Your task to perform on an android device: change the clock display to digital Image 0: 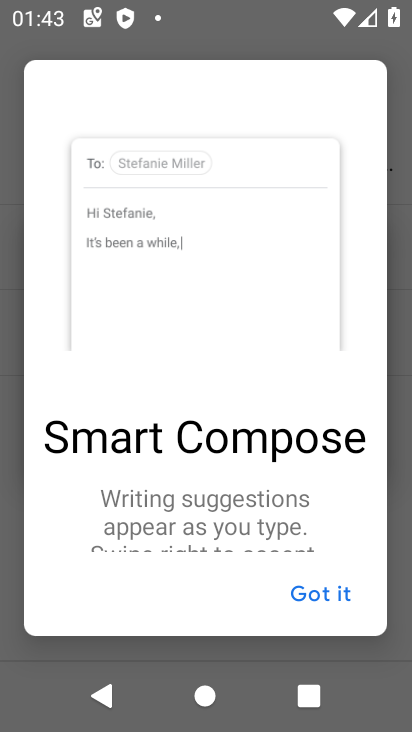
Step 0: press home button
Your task to perform on an android device: change the clock display to digital Image 1: 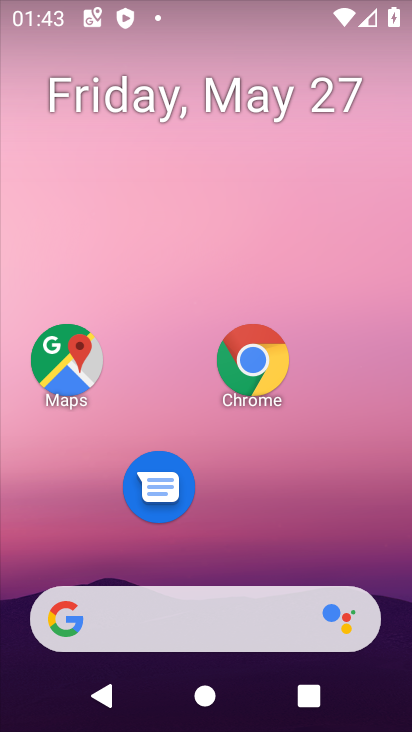
Step 1: drag from (222, 536) to (284, 79)
Your task to perform on an android device: change the clock display to digital Image 2: 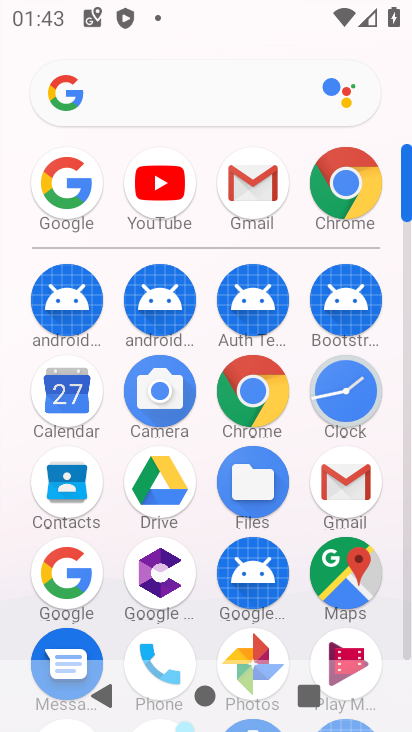
Step 2: drag from (223, 580) to (245, 172)
Your task to perform on an android device: change the clock display to digital Image 3: 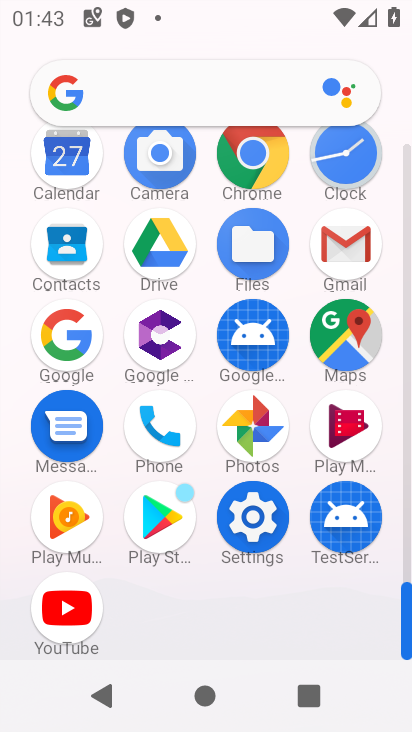
Step 3: drag from (284, 168) to (300, 292)
Your task to perform on an android device: change the clock display to digital Image 4: 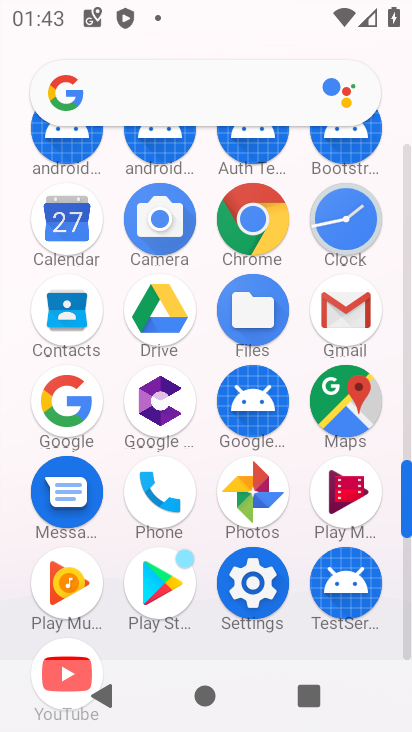
Step 4: click (346, 213)
Your task to perform on an android device: change the clock display to digital Image 5: 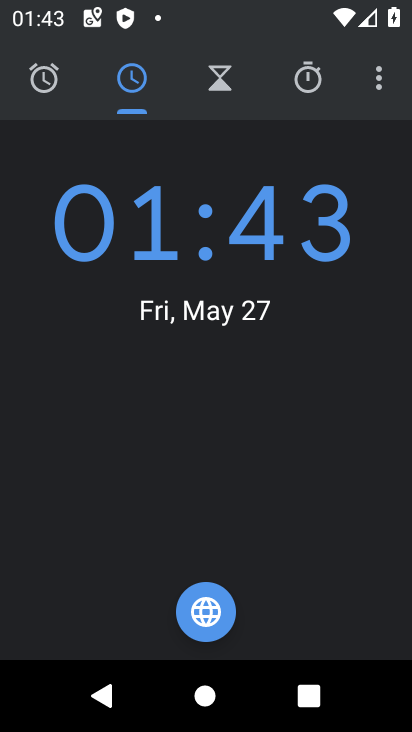
Step 5: click (370, 78)
Your task to perform on an android device: change the clock display to digital Image 6: 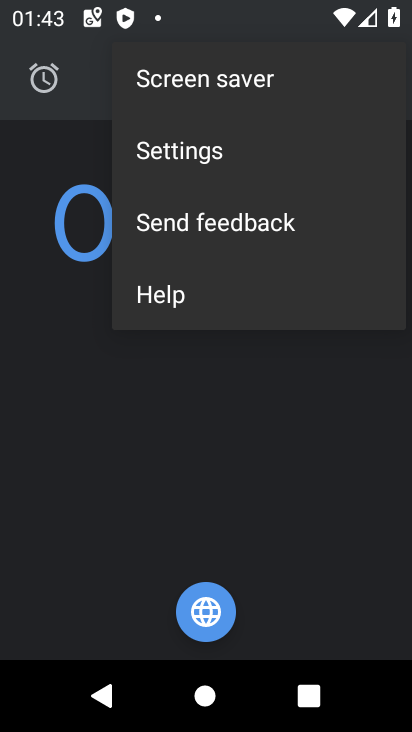
Step 6: click (229, 172)
Your task to perform on an android device: change the clock display to digital Image 7: 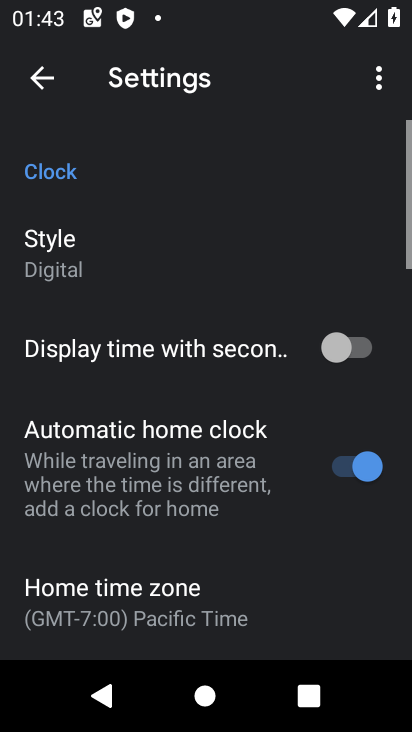
Step 7: click (122, 249)
Your task to perform on an android device: change the clock display to digital Image 8: 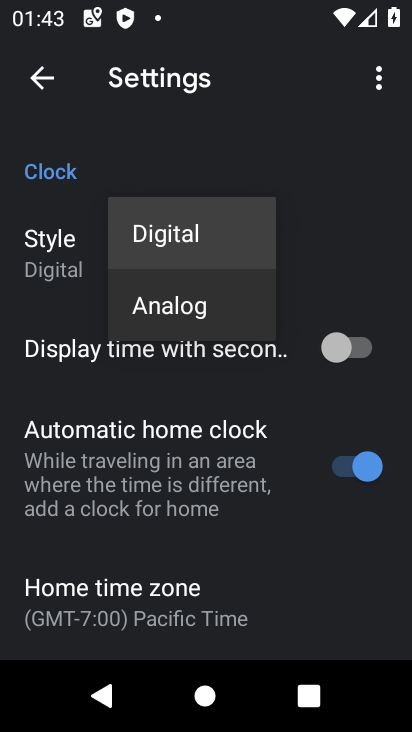
Step 8: task complete